Your task to perform on an android device: Open the Play Movies app and select the watchlist tab. Image 0: 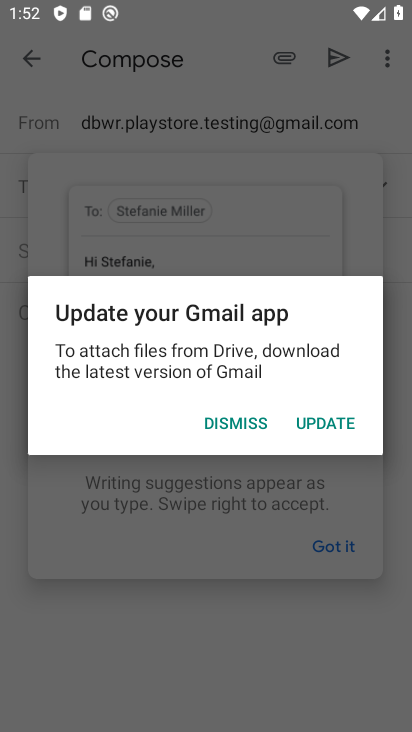
Step 0: press home button
Your task to perform on an android device: Open the Play Movies app and select the watchlist tab. Image 1: 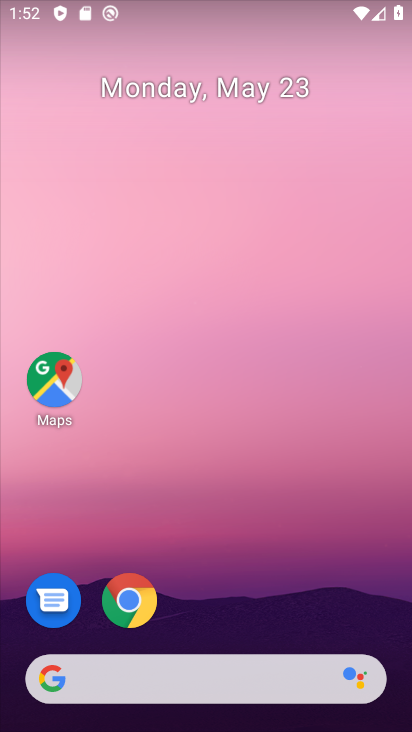
Step 1: drag from (233, 632) to (189, 245)
Your task to perform on an android device: Open the Play Movies app and select the watchlist tab. Image 2: 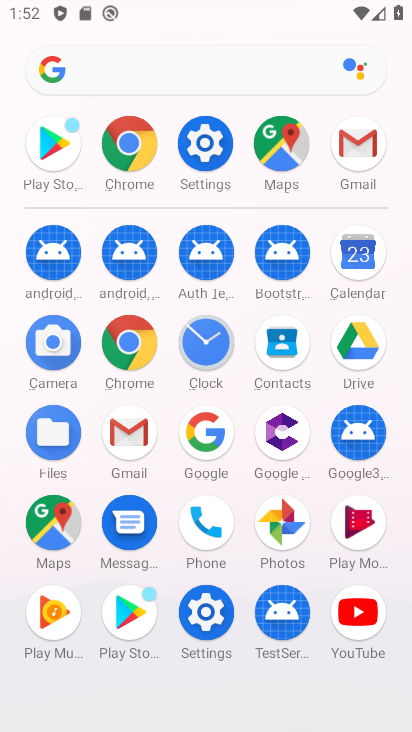
Step 2: click (357, 520)
Your task to perform on an android device: Open the Play Movies app and select the watchlist tab. Image 3: 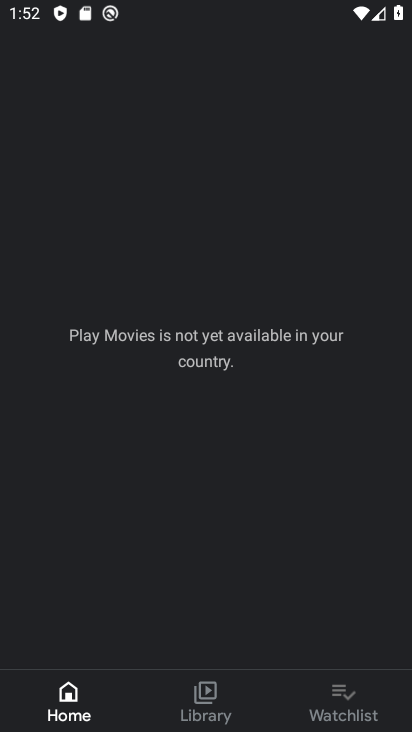
Step 3: click (337, 683)
Your task to perform on an android device: Open the Play Movies app and select the watchlist tab. Image 4: 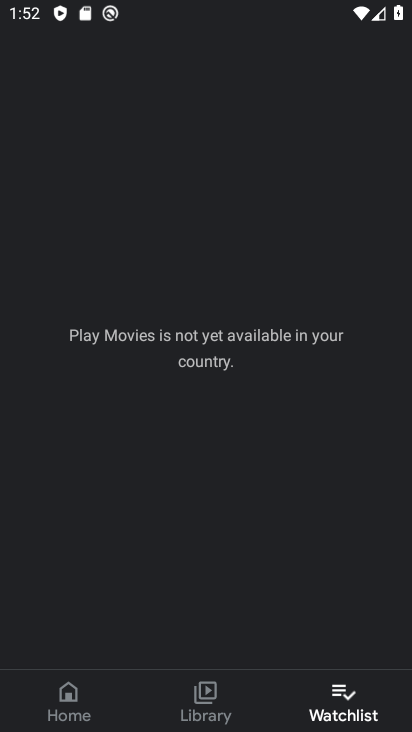
Step 4: task complete